Your task to perform on an android device: change the upload size in google photos Image 0: 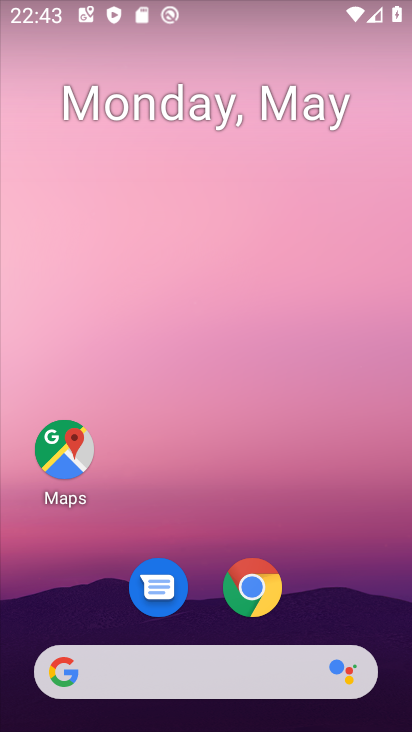
Step 0: drag from (235, 638) to (198, 52)
Your task to perform on an android device: change the upload size in google photos Image 1: 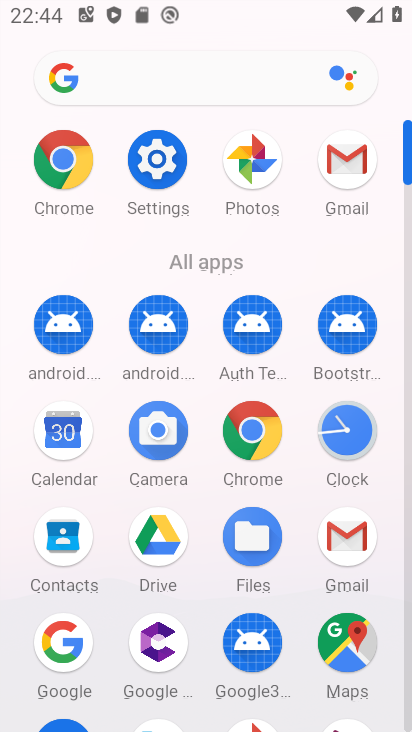
Step 1: drag from (204, 638) to (159, 146)
Your task to perform on an android device: change the upload size in google photos Image 2: 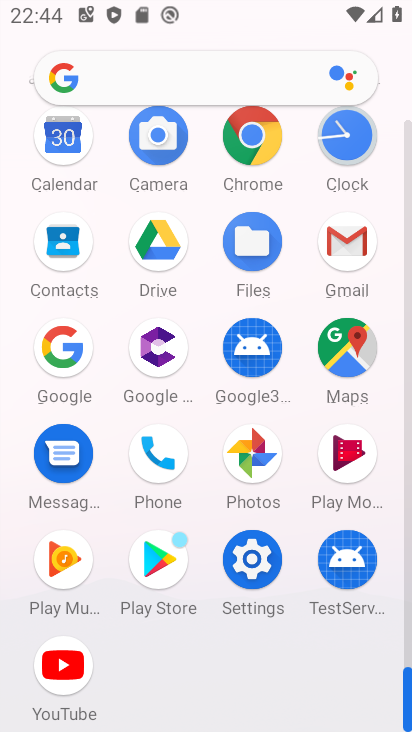
Step 2: click (236, 457)
Your task to perform on an android device: change the upload size in google photos Image 3: 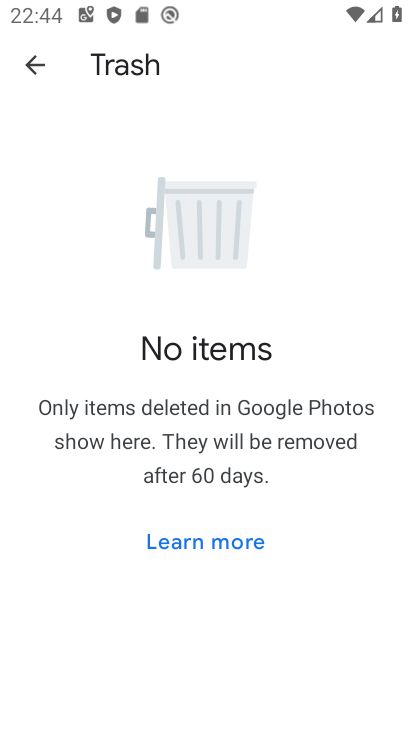
Step 3: click (35, 68)
Your task to perform on an android device: change the upload size in google photos Image 4: 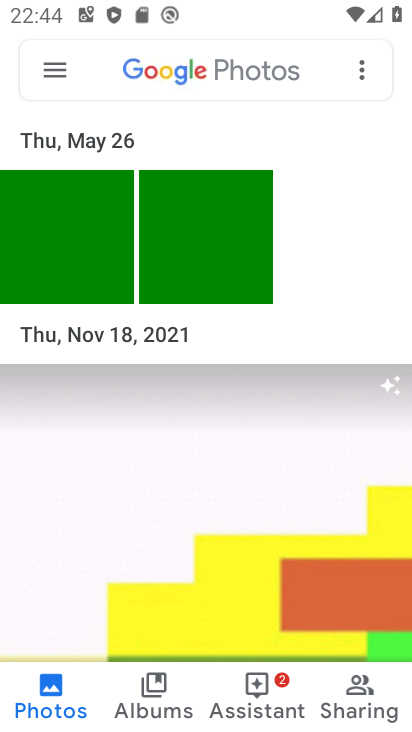
Step 4: click (50, 62)
Your task to perform on an android device: change the upload size in google photos Image 5: 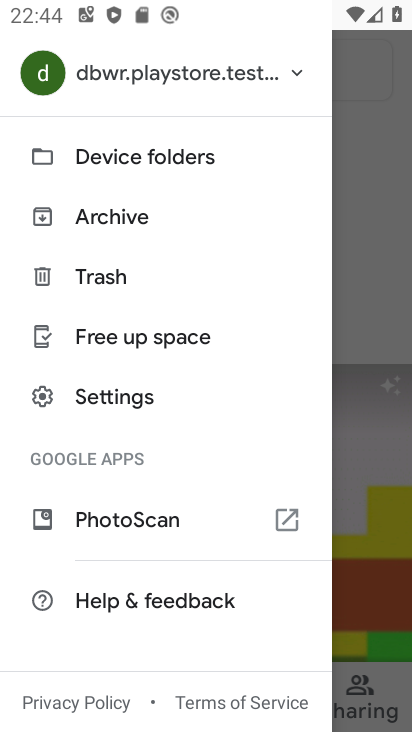
Step 5: click (135, 401)
Your task to perform on an android device: change the upload size in google photos Image 6: 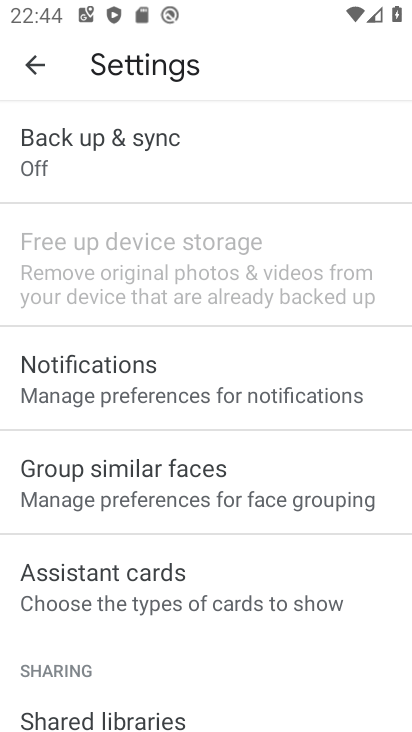
Step 6: click (127, 165)
Your task to perform on an android device: change the upload size in google photos Image 7: 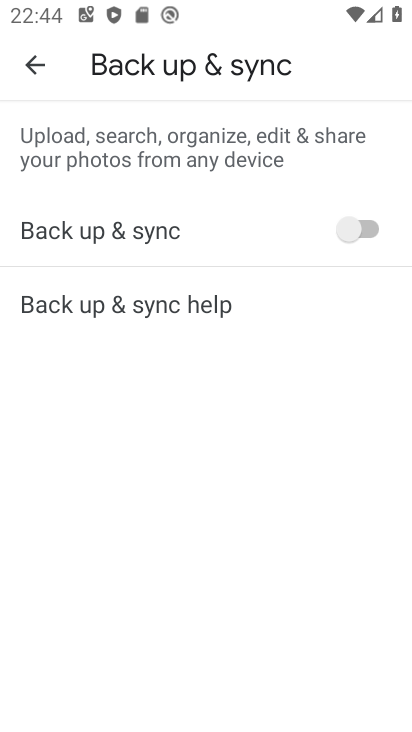
Step 7: click (356, 225)
Your task to perform on an android device: change the upload size in google photos Image 8: 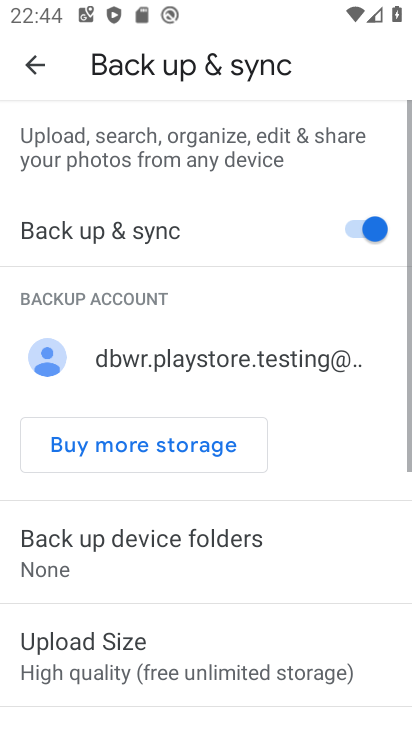
Step 8: click (124, 653)
Your task to perform on an android device: change the upload size in google photos Image 9: 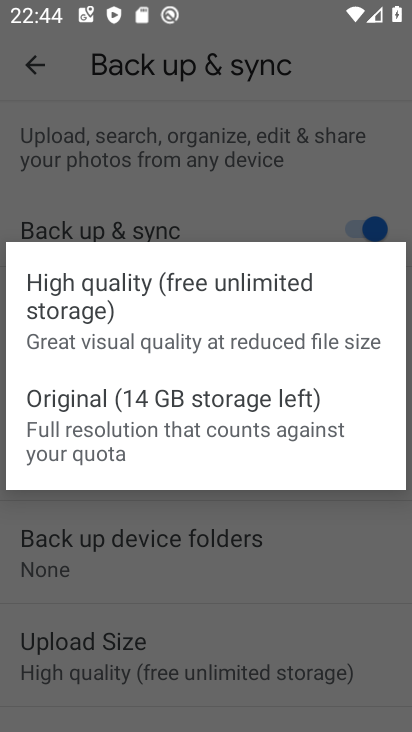
Step 9: click (166, 422)
Your task to perform on an android device: change the upload size in google photos Image 10: 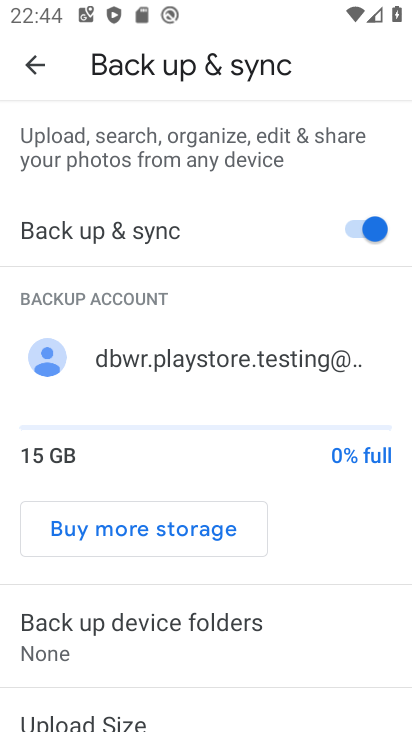
Step 10: task complete